Your task to perform on an android device: turn on priority inbox in the gmail app Image 0: 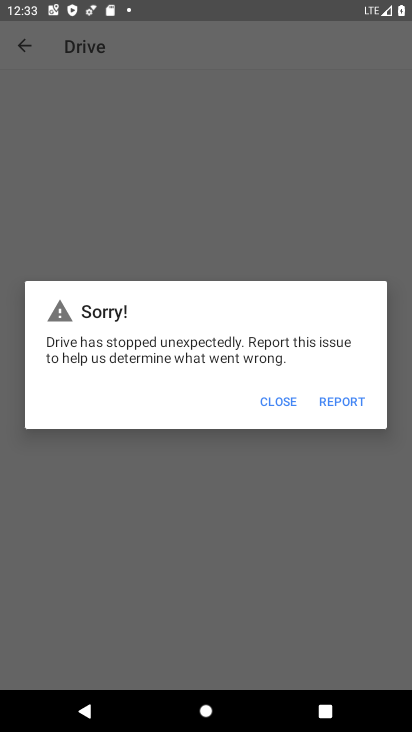
Step 0: press home button
Your task to perform on an android device: turn on priority inbox in the gmail app Image 1: 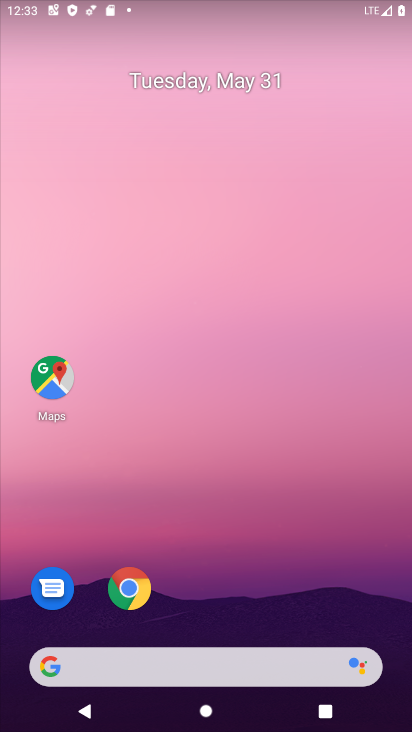
Step 1: drag from (207, 620) to (244, 48)
Your task to perform on an android device: turn on priority inbox in the gmail app Image 2: 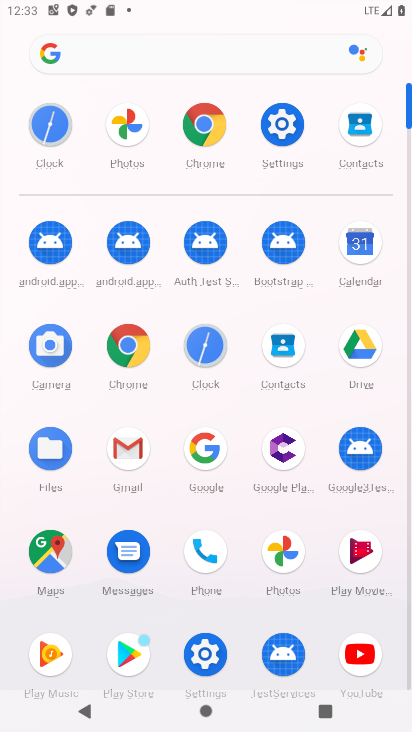
Step 2: click (128, 443)
Your task to perform on an android device: turn on priority inbox in the gmail app Image 3: 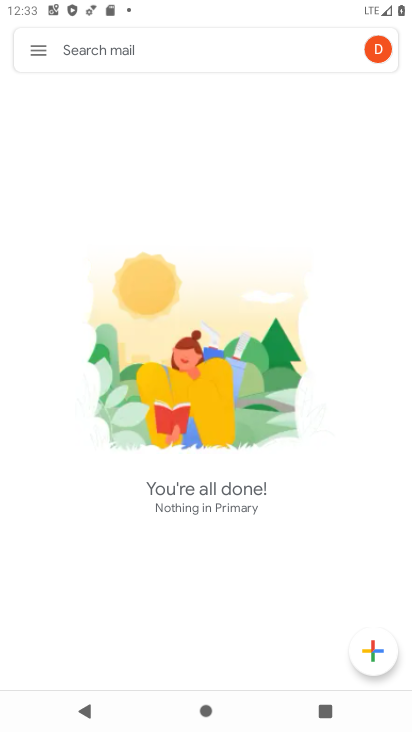
Step 3: click (38, 44)
Your task to perform on an android device: turn on priority inbox in the gmail app Image 4: 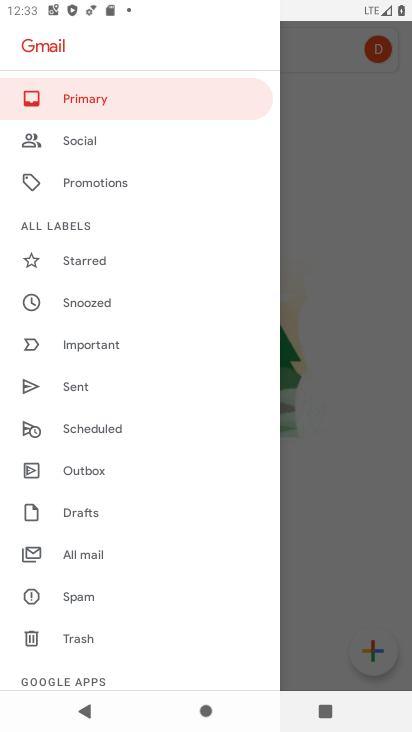
Step 4: drag from (112, 639) to (103, 116)
Your task to perform on an android device: turn on priority inbox in the gmail app Image 5: 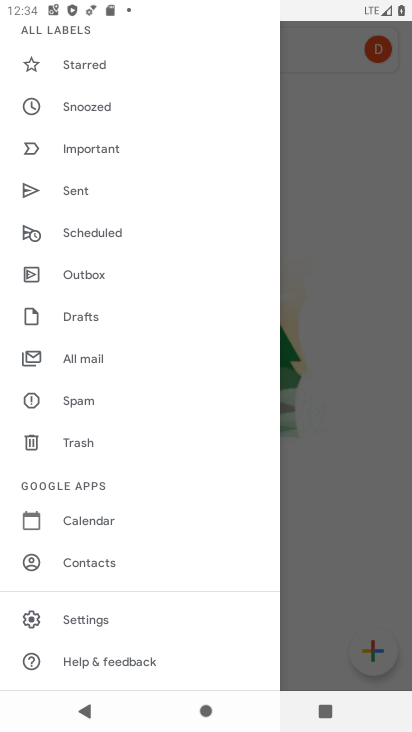
Step 5: click (125, 615)
Your task to perform on an android device: turn on priority inbox in the gmail app Image 6: 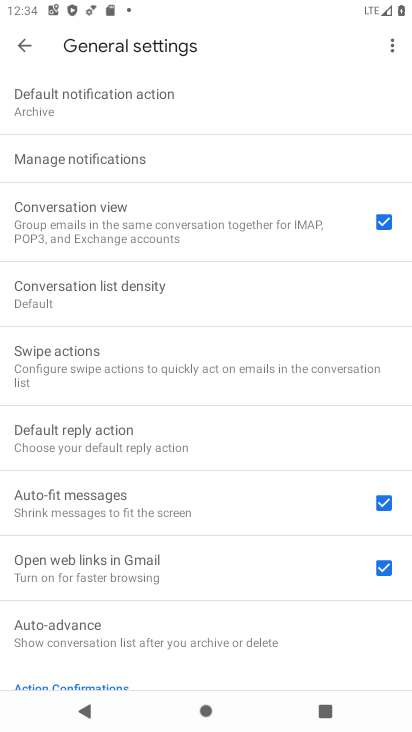
Step 6: click (26, 48)
Your task to perform on an android device: turn on priority inbox in the gmail app Image 7: 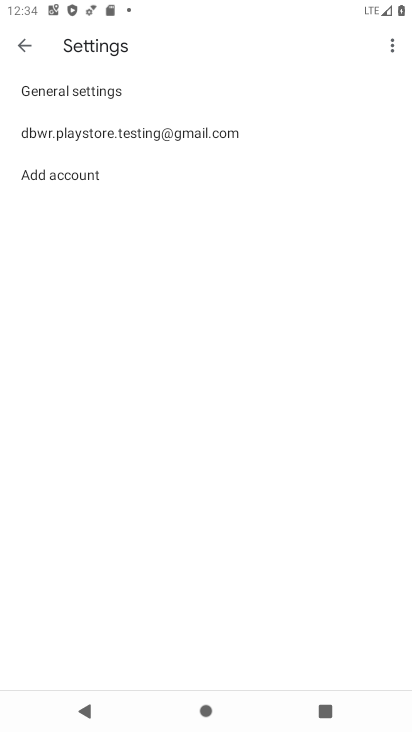
Step 7: click (251, 132)
Your task to perform on an android device: turn on priority inbox in the gmail app Image 8: 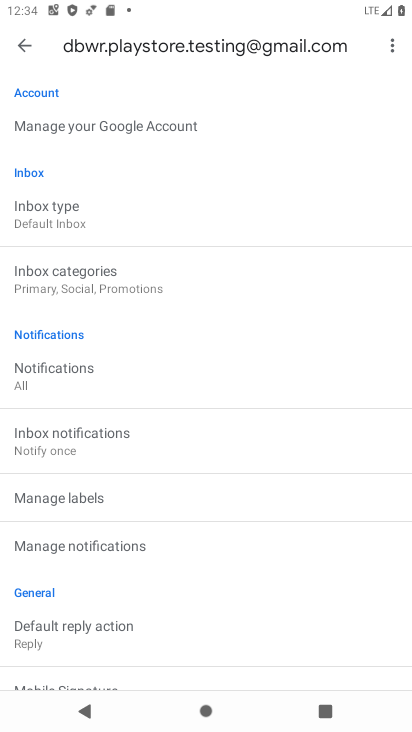
Step 8: click (101, 215)
Your task to perform on an android device: turn on priority inbox in the gmail app Image 9: 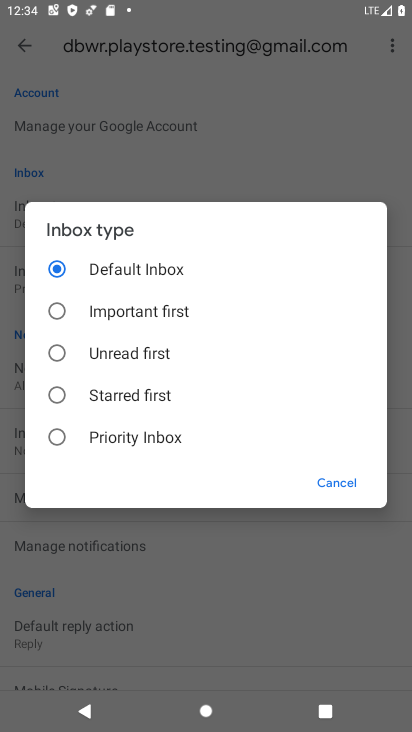
Step 9: click (59, 435)
Your task to perform on an android device: turn on priority inbox in the gmail app Image 10: 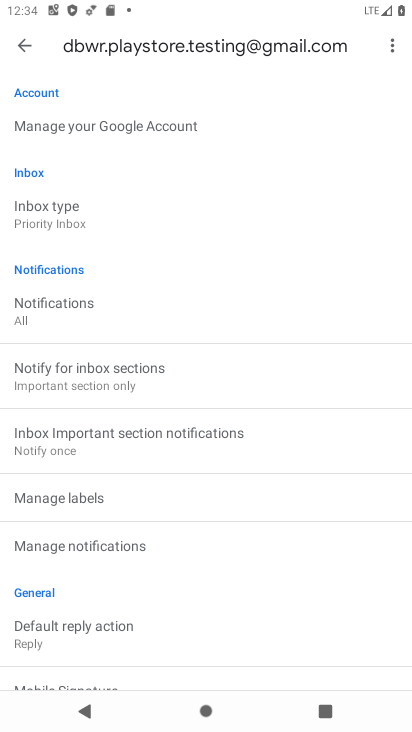
Step 10: task complete